Your task to perform on an android device: turn off sleep mode Image 0: 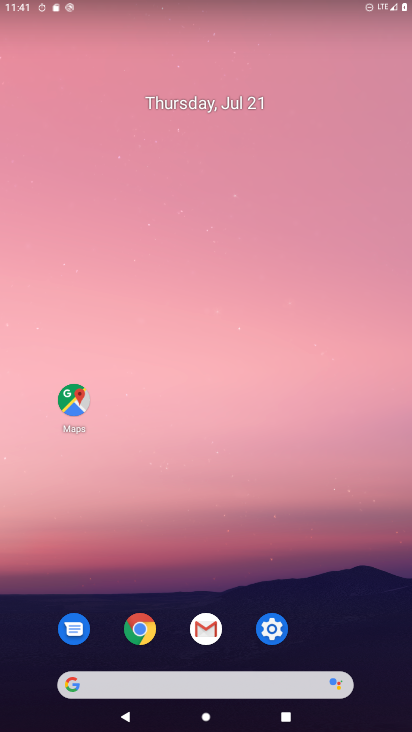
Step 0: drag from (244, 685) to (282, 192)
Your task to perform on an android device: turn off sleep mode Image 1: 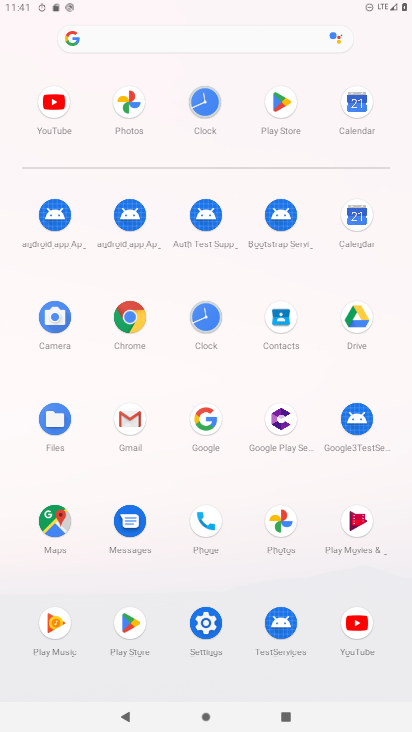
Step 1: click (209, 615)
Your task to perform on an android device: turn off sleep mode Image 2: 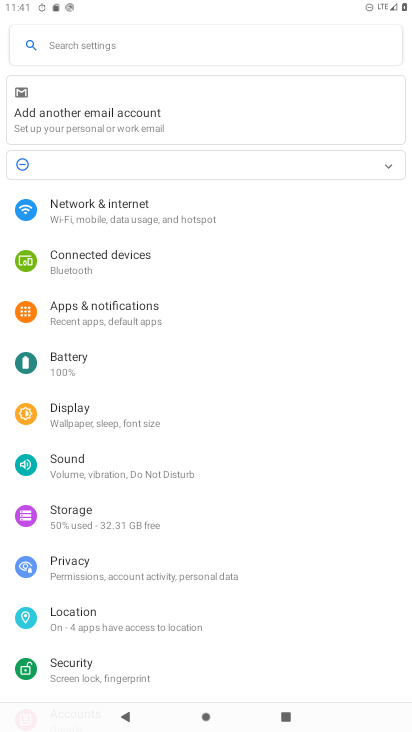
Step 2: click (81, 51)
Your task to perform on an android device: turn off sleep mode Image 3: 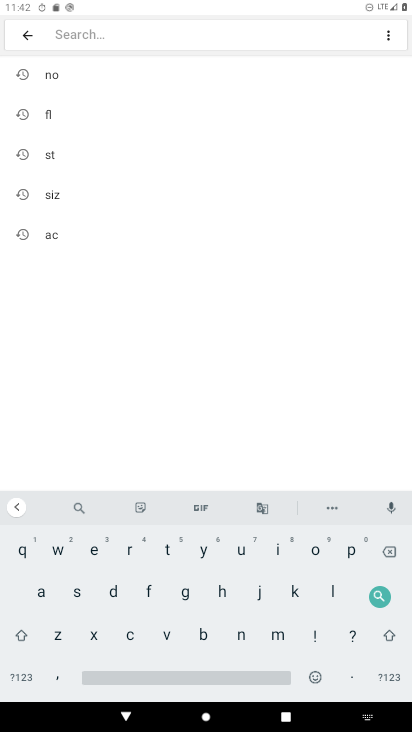
Step 3: click (81, 592)
Your task to perform on an android device: turn off sleep mode Image 4: 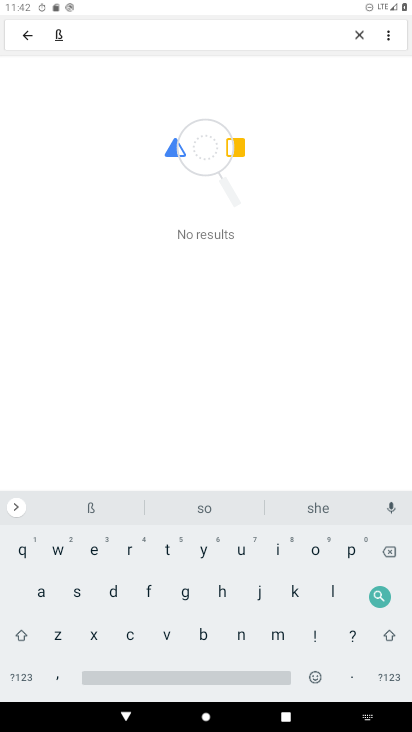
Step 4: click (385, 550)
Your task to perform on an android device: turn off sleep mode Image 5: 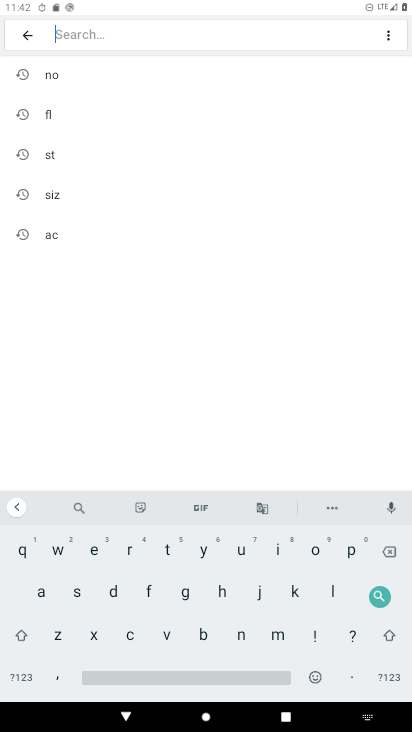
Step 5: click (70, 589)
Your task to perform on an android device: turn off sleep mode Image 6: 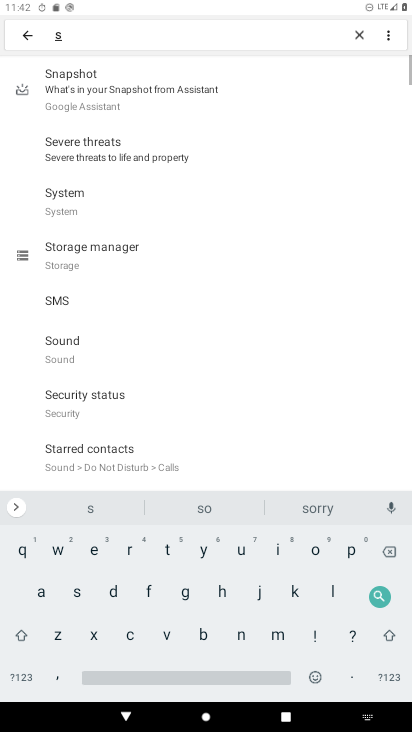
Step 6: click (331, 585)
Your task to perform on an android device: turn off sleep mode Image 7: 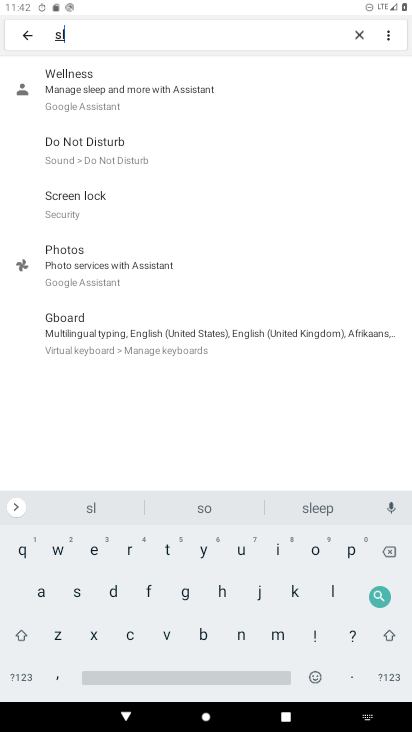
Step 7: click (118, 147)
Your task to perform on an android device: turn off sleep mode Image 8: 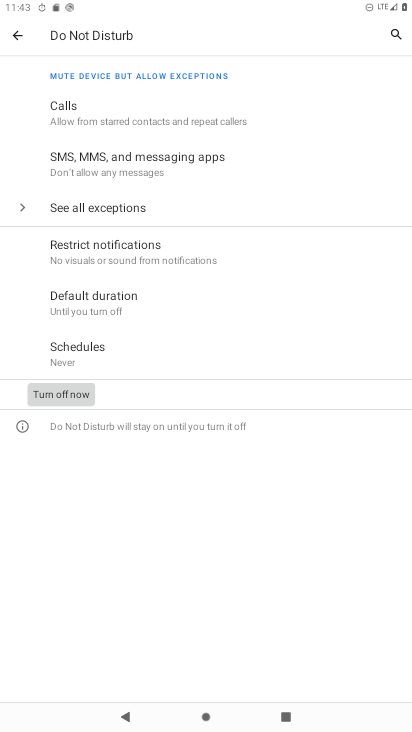
Step 8: task complete